Your task to perform on an android device: toggle airplane mode Image 0: 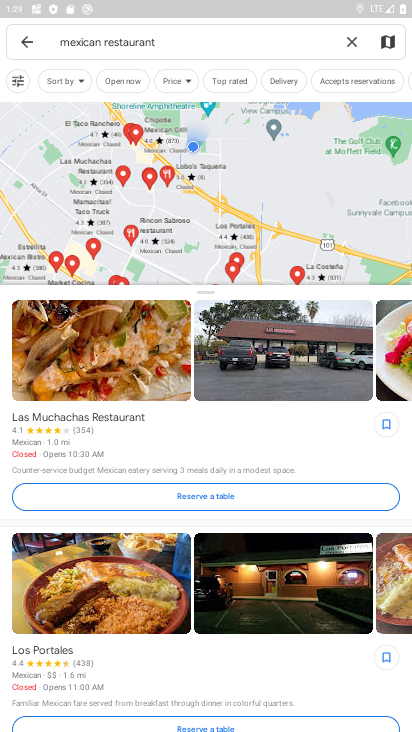
Step 0: press home button
Your task to perform on an android device: toggle airplane mode Image 1: 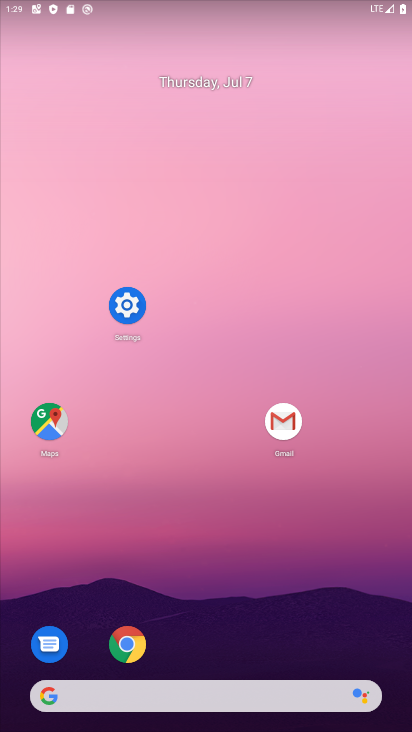
Step 1: drag from (390, 666) to (377, 164)
Your task to perform on an android device: toggle airplane mode Image 2: 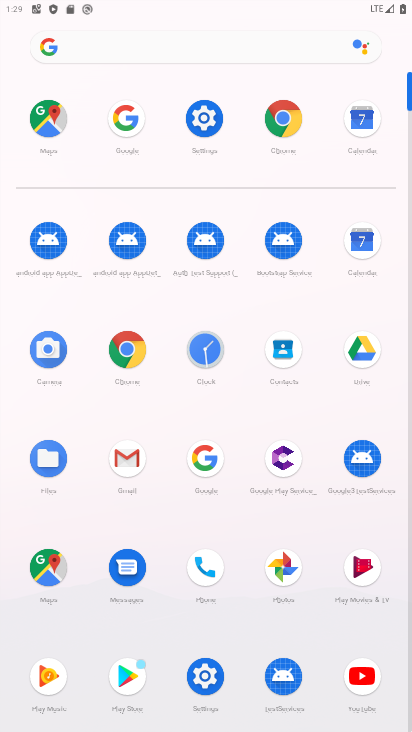
Step 2: click (218, 127)
Your task to perform on an android device: toggle airplane mode Image 3: 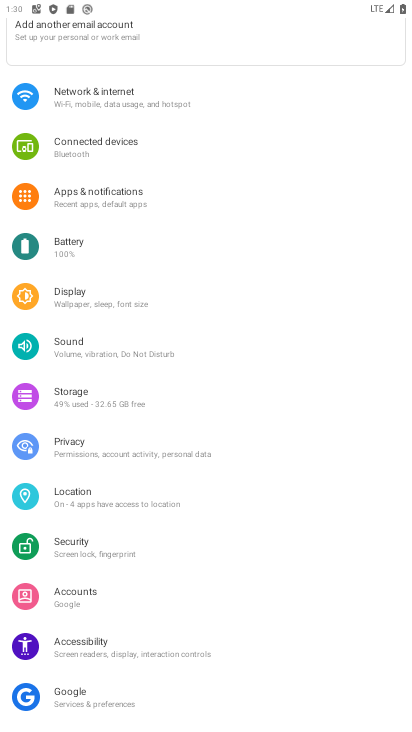
Step 3: click (110, 87)
Your task to perform on an android device: toggle airplane mode Image 4: 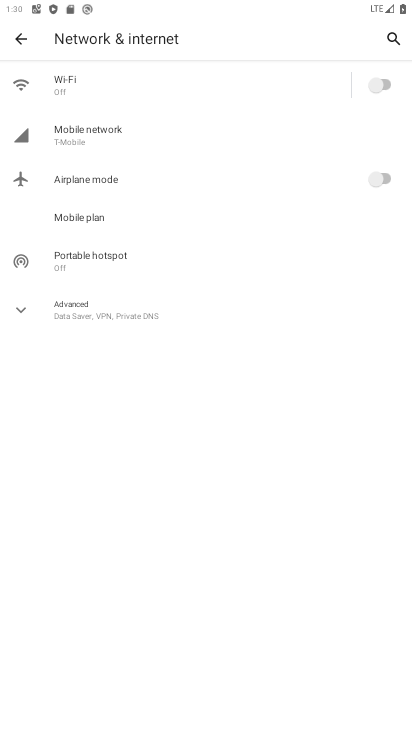
Step 4: click (380, 174)
Your task to perform on an android device: toggle airplane mode Image 5: 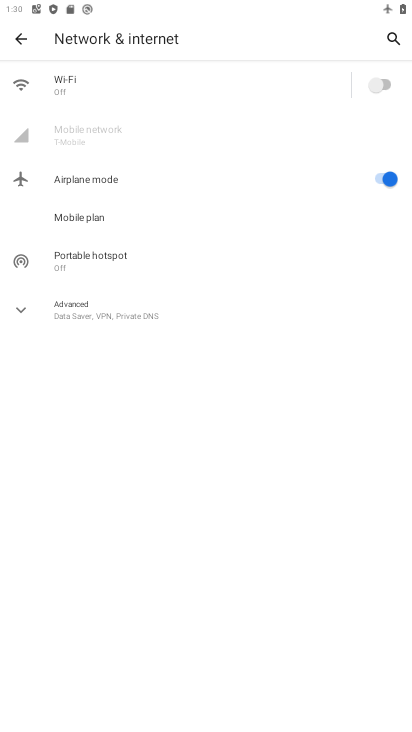
Step 5: task complete